Your task to perform on an android device: toggle improve location accuracy Image 0: 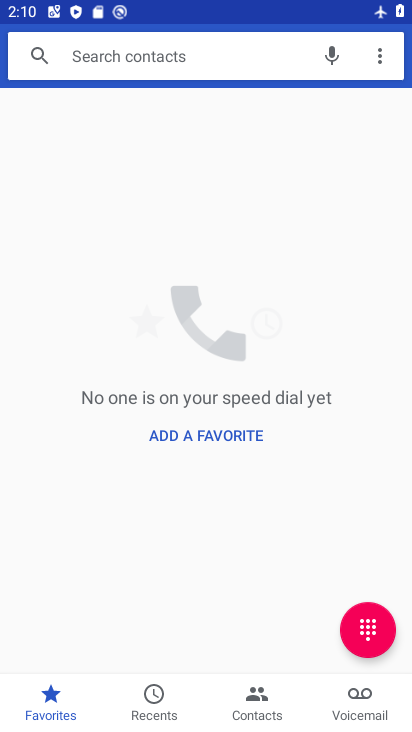
Step 0: press home button
Your task to perform on an android device: toggle improve location accuracy Image 1: 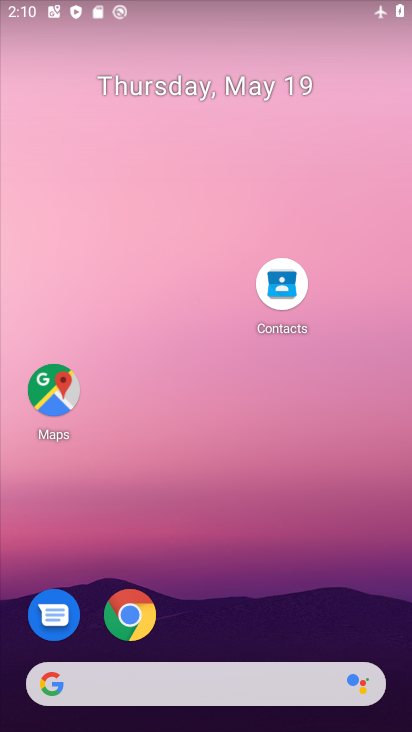
Step 1: drag from (251, 530) to (339, 198)
Your task to perform on an android device: toggle improve location accuracy Image 2: 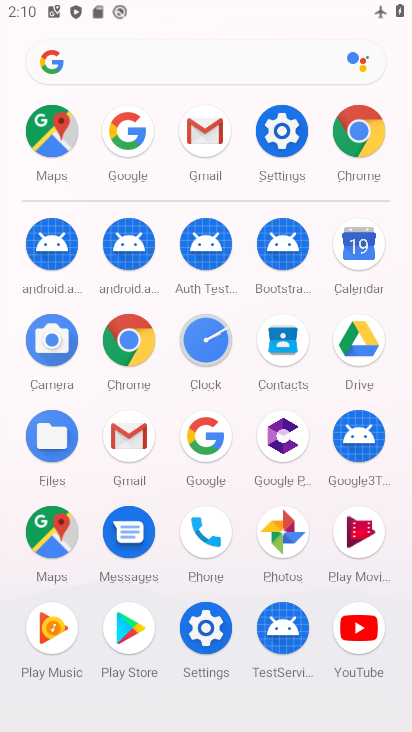
Step 2: click (302, 146)
Your task to perform on an android device: toggle improve location accuracy Image 3: 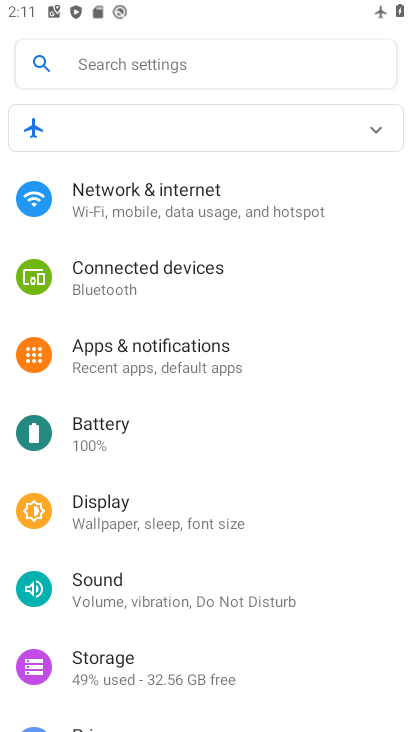
Step 3: drag from (229, 477) to (264, 350)
Your task to perform on an android device: toggle improve location accuracy Image 4: 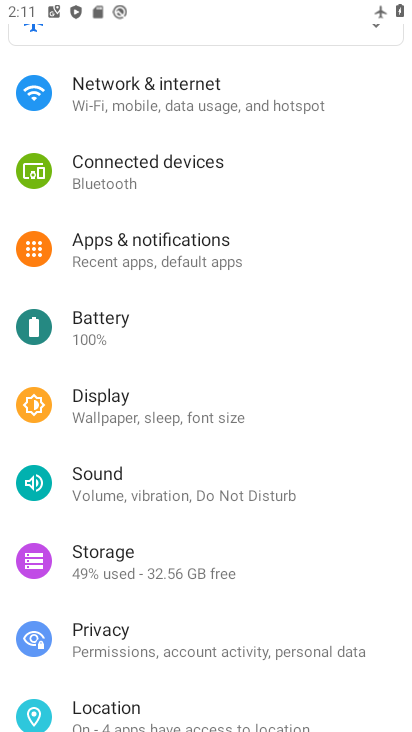
Step 4: click (161, 708)
Your task to perform on an android device: toggle improve location accuracy Image 5: 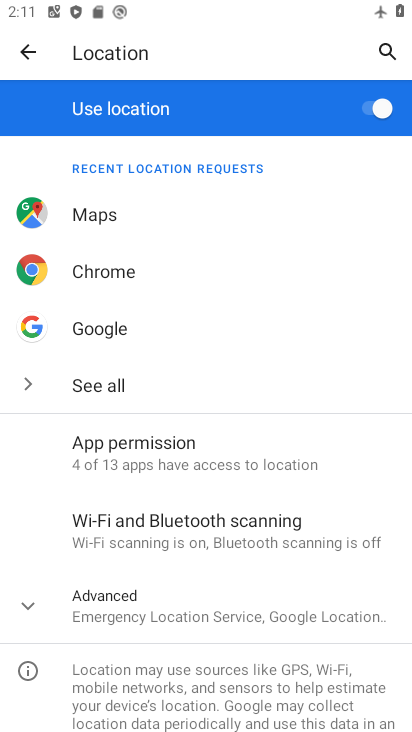
Step 5: click (173, 606)
Your task to perform on an android device: toggle improve location accuracy Image 6: 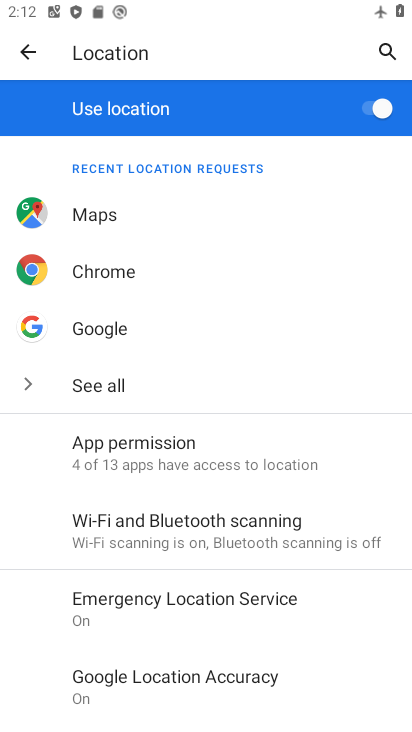
Step 6: click (249, 692)
Your task to perform on an android device: toggle improve location accuracy Image 7: 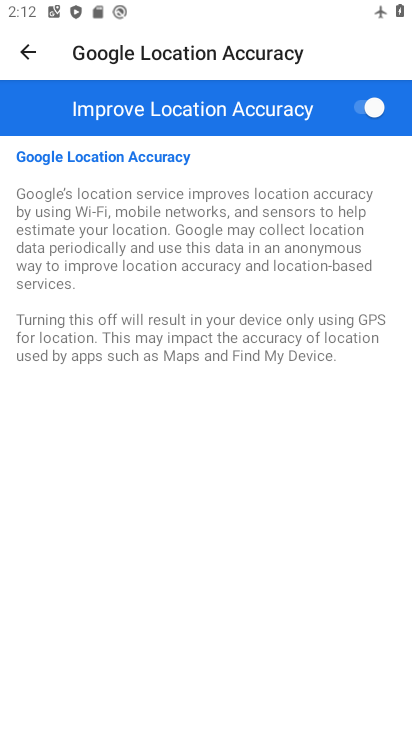
Step 7: click (354, 109)
Your task to perform on an android device: toggle improve location accuracy Image 8: 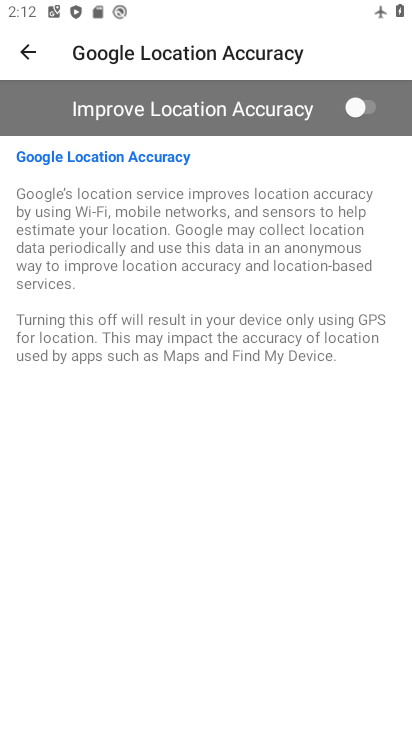
Step 8: task complete